Your task to perform on an android device: find photos in the google photos app Image 0: 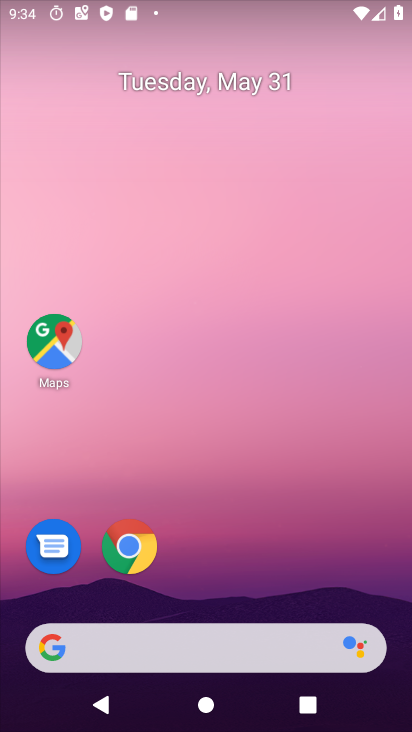
Step 0: drag from (251, 600) to (181, 202)
Your task to perform on an android device: find photos in the google photos app Image 1: 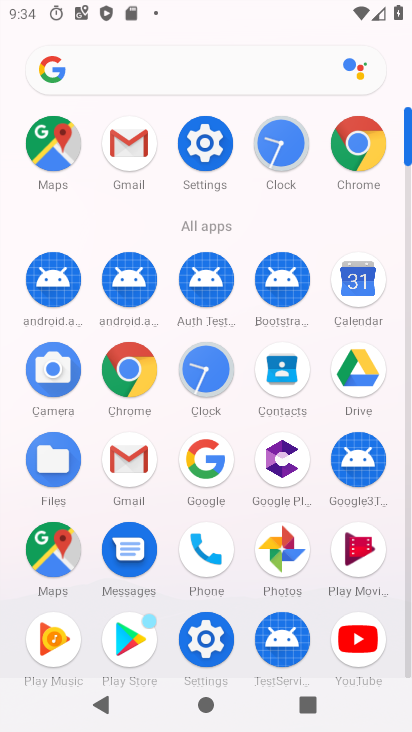
Step 1: click (277, 542)
Your task to perform on an android device: find photos in the google photos app Image 2: 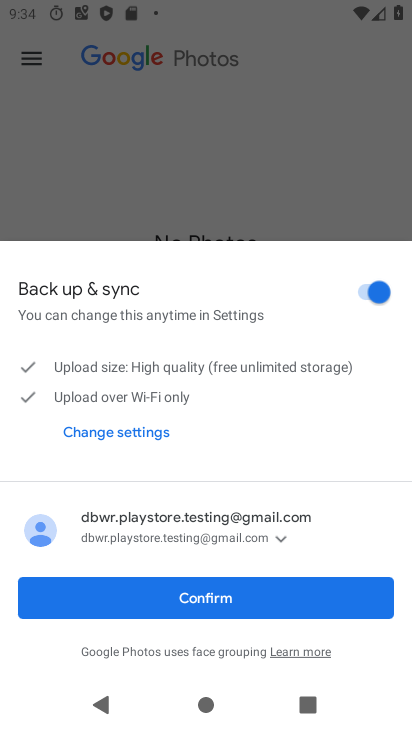
Step 2: click (199, 593)
Your task to perform on an android device: find photos in the google photos app Image 3: 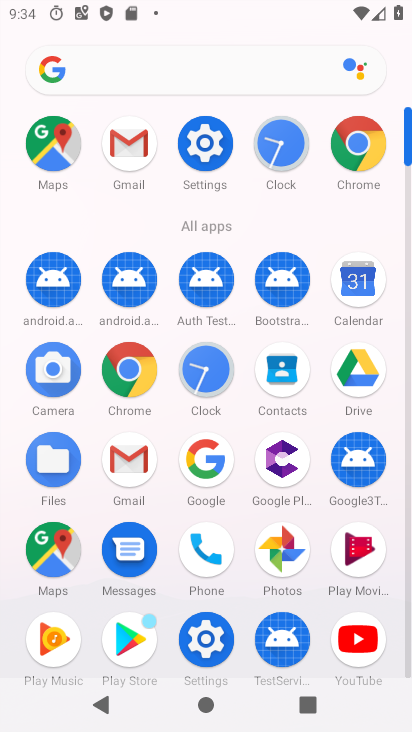
Step 3: click (283, 552)
Your task to perform on an android device: find photos in the google photos app Image 4: 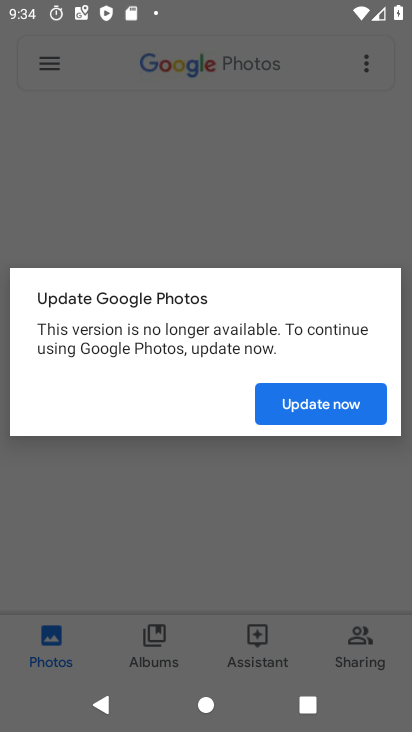
Step 4: click (311, 399)
Your task to perform on an android device: find photos in the google photos app Image 5: 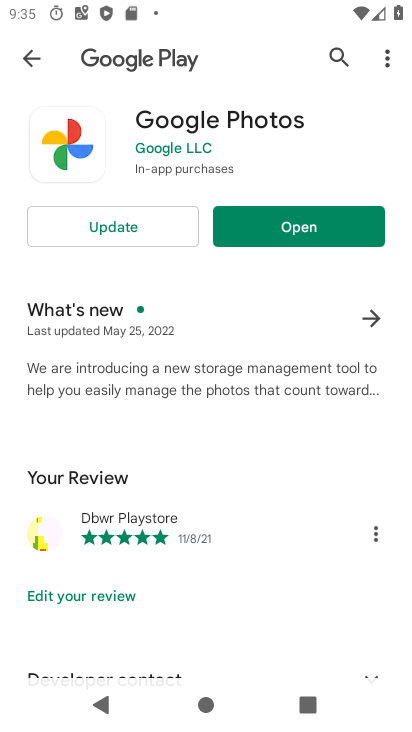
Step 5: click (149, 229)
Your task to perform on an android device: find photos in the google photos app Image 6: 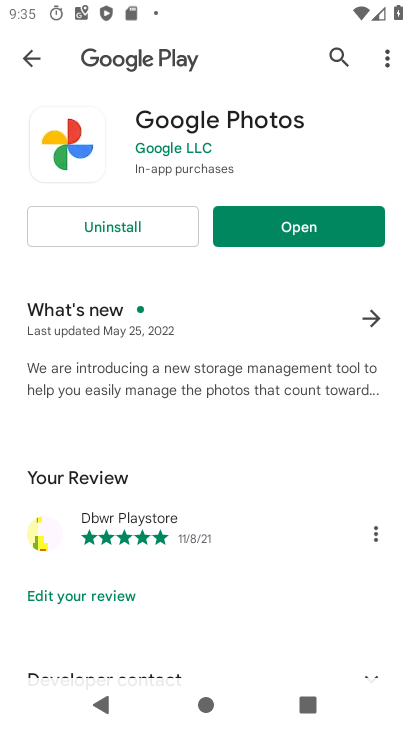
Step 6: click (267, 222)
Your task to perform on an android device: find photos in the google photos app Image 7: 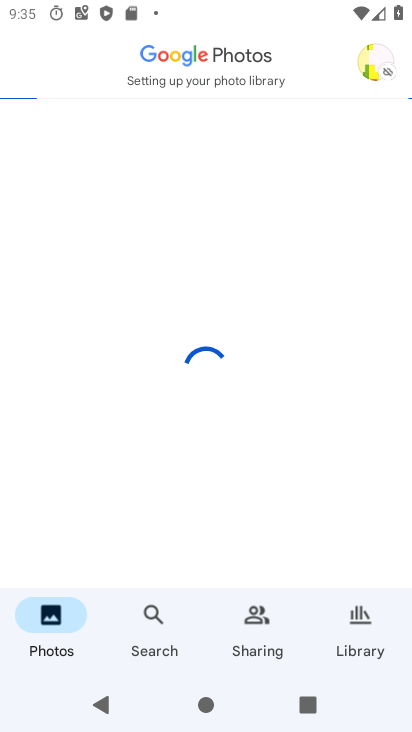
Step 7: task complete